Your task to perform on an android device: Search for "jbl charge 4" on amazon, select the first entry, add it to the cart, then select checkout. Image 0: 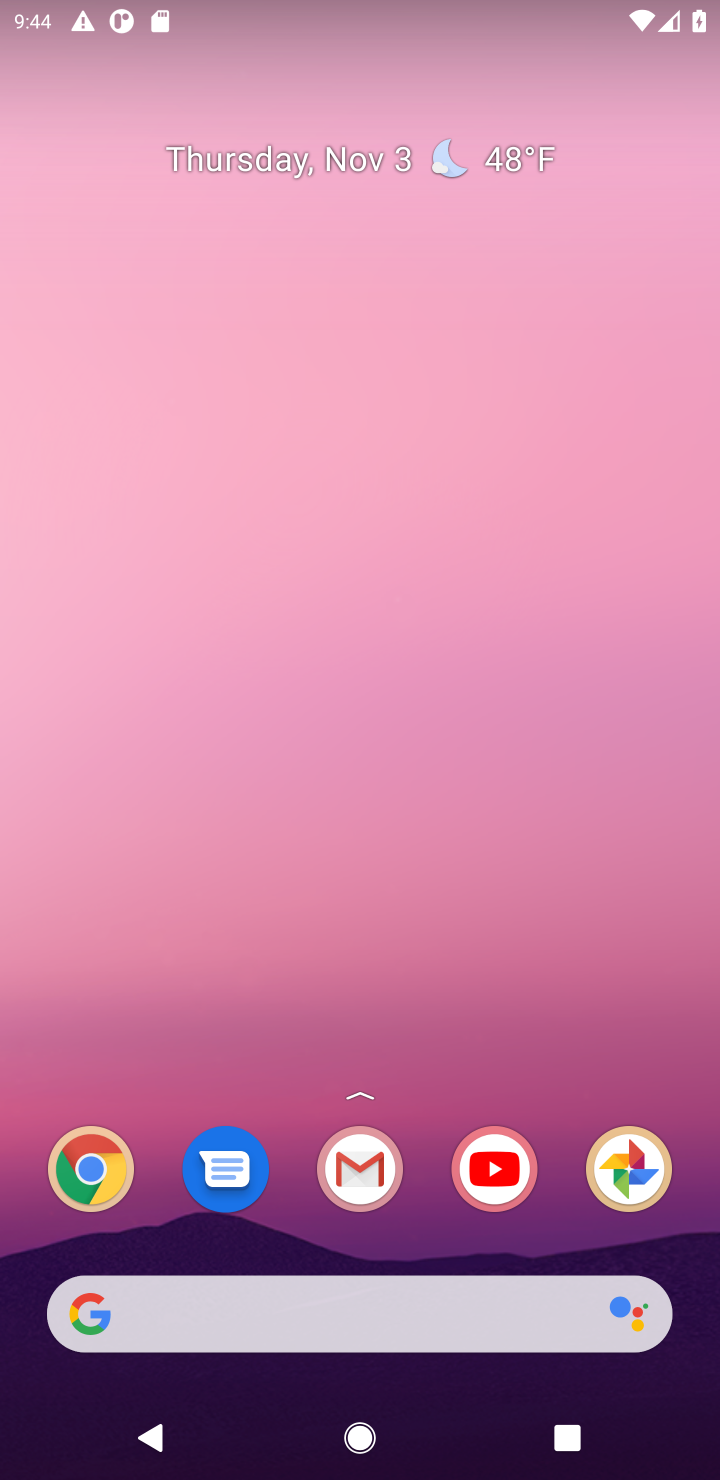
Step 0: drag from (426, 1257) to (458, 173)
Your task to perform on an android device: Search for "jbl charge 4" on amazon, select the first entry, add it to the cart, then select checkout. Image 1: 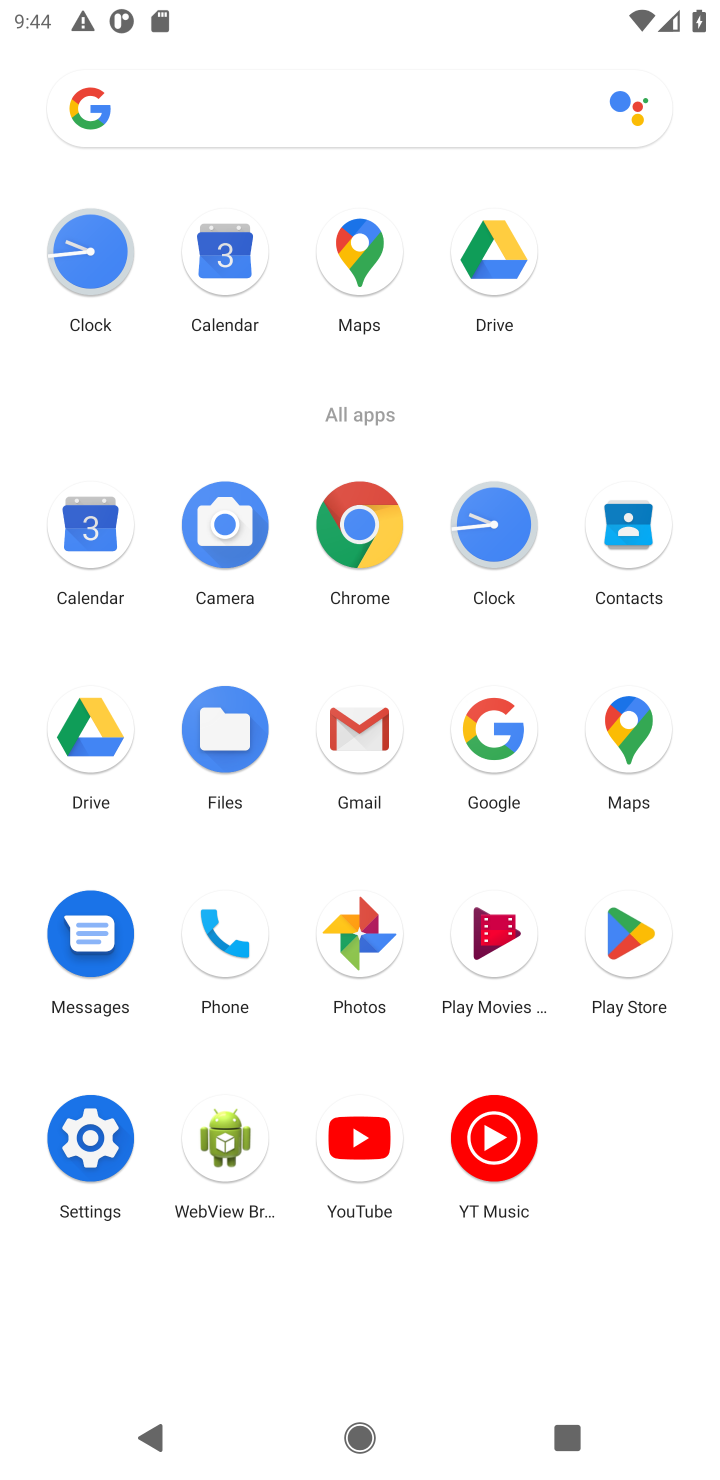
Step 1: click (363, 525)
Your task to perform on an android device: Search for "jbl charge 4" on amazon, select the first entry, add it to the cart, then select checkout. Image 2: 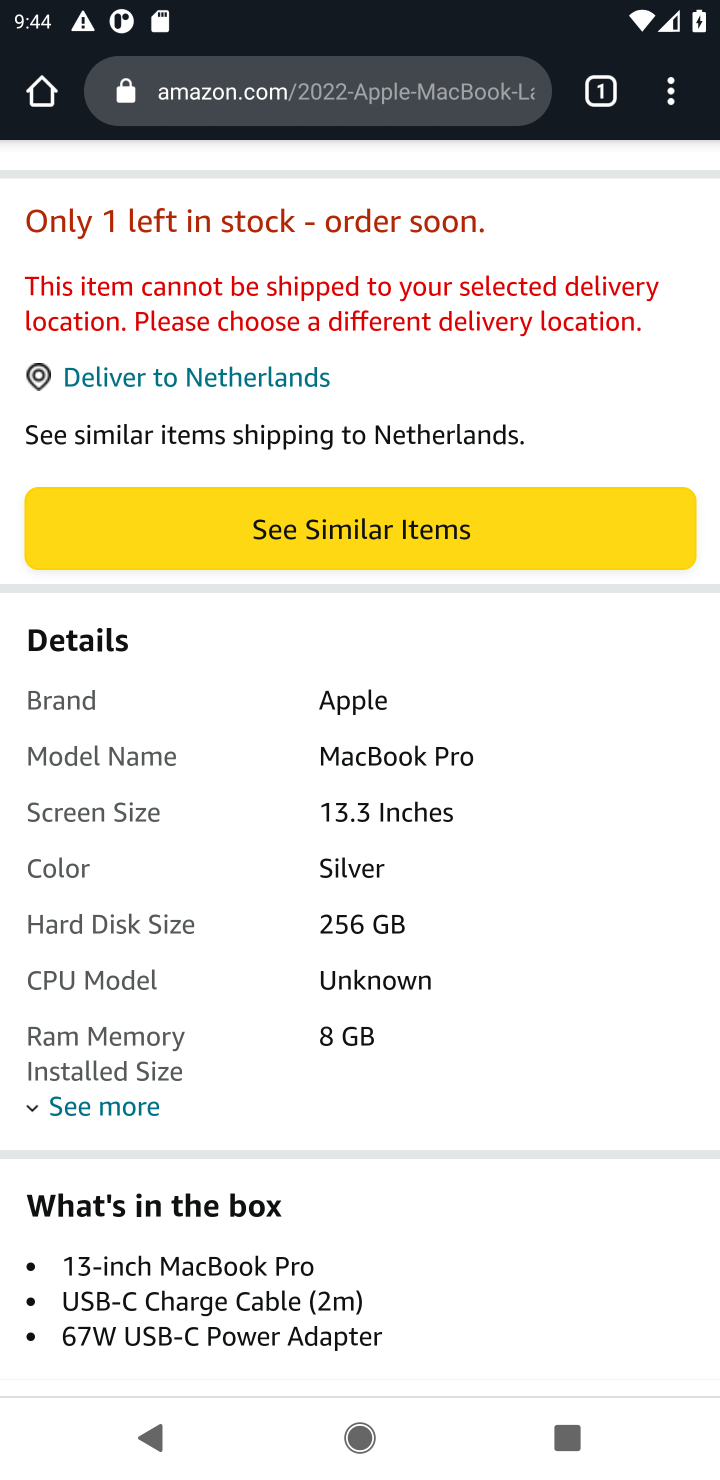
Step 2: click (284, 81)
Your task to perform on an android device: Search for "jbl charge 4" on amazon, select the first entry, add it to the cart, then select checkout. Image 3: 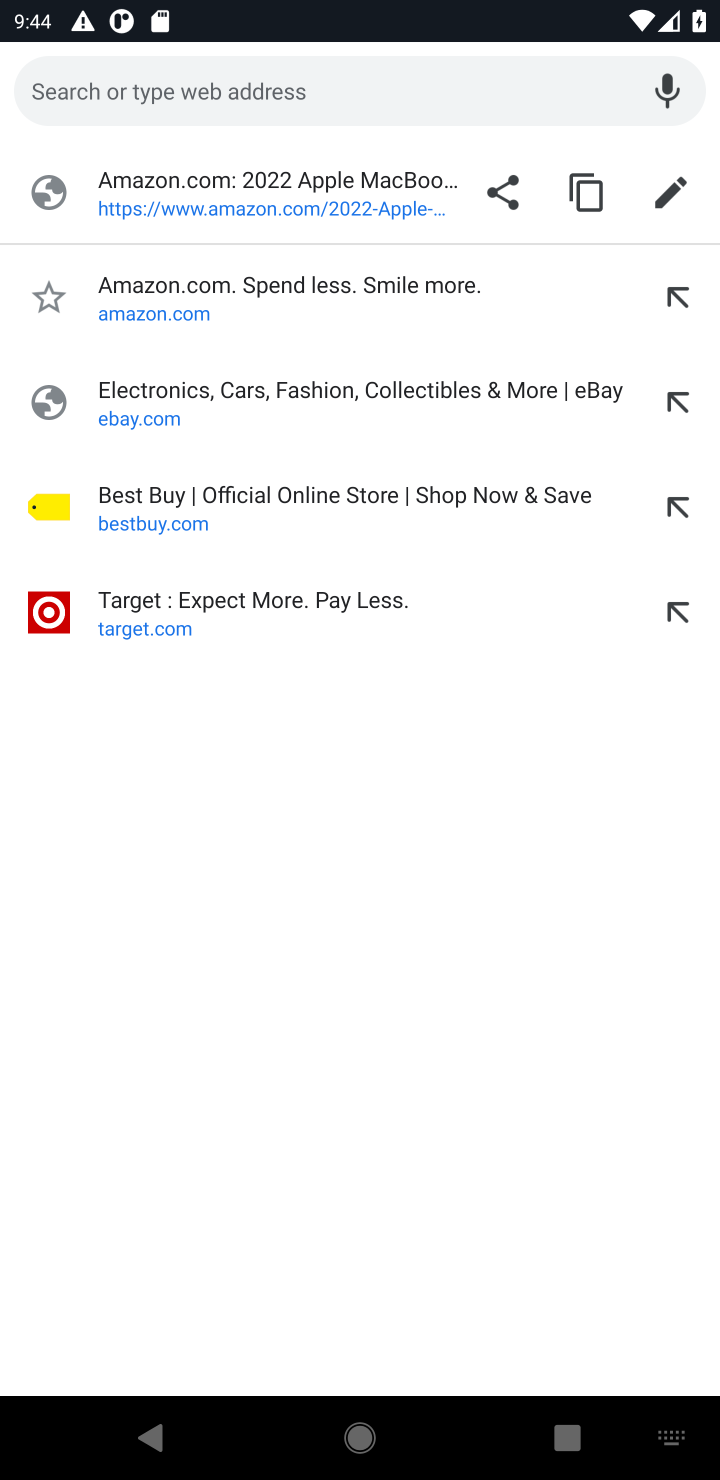
Step 3: type "amazon.com"
Your task to perform on an android device: Search for "jbl charge 4" on amazon, select the first entry, add it to the cart, then select checkout. Image 4: 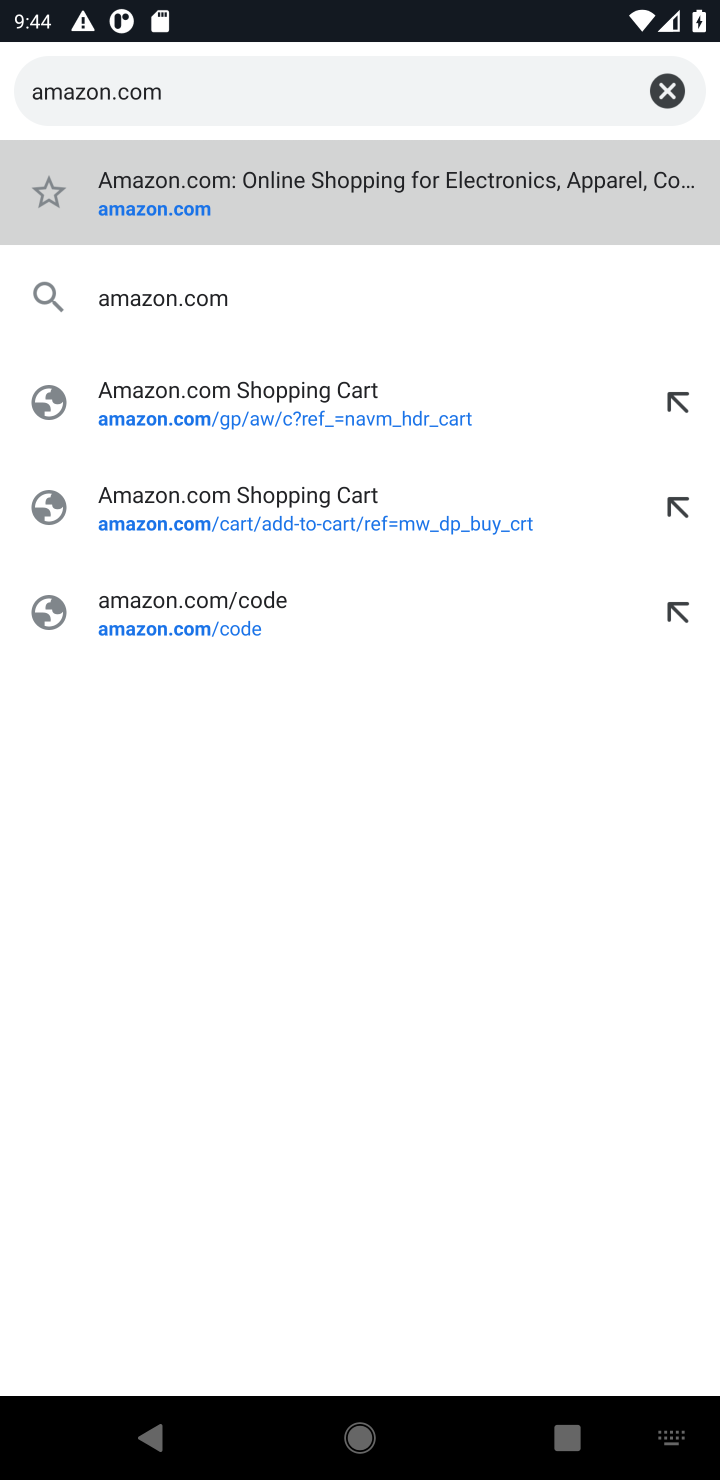
Step 4: press enter
Your task to perform on an android device: Search for "jbl charge 4" on amazon, select the first entry, add it to the cart, then select checkout. Image 5: 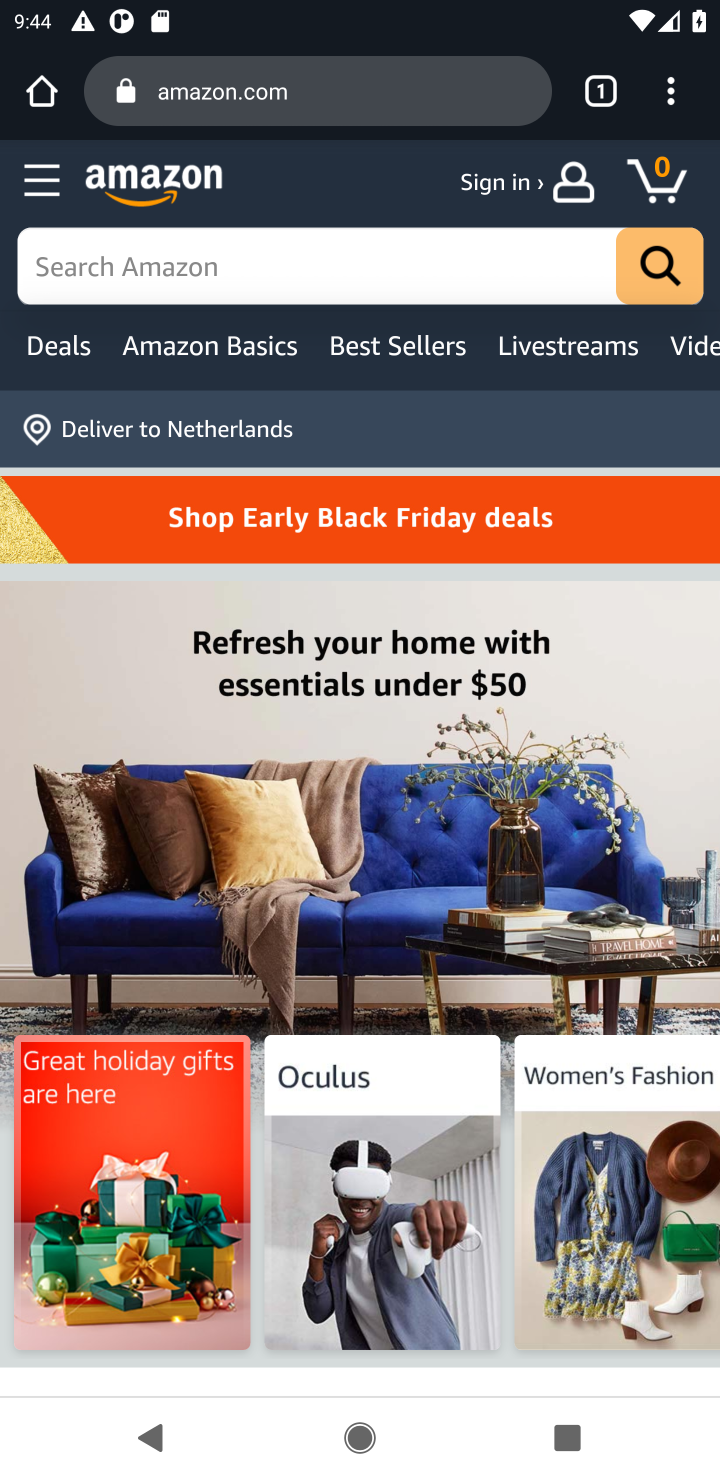
Step 5: click (306, 287)
Your task to perform on an android device: Search for "jbl charge 4" on amazon, select the first entry, add it to the cart, then select checkout. Image 6: 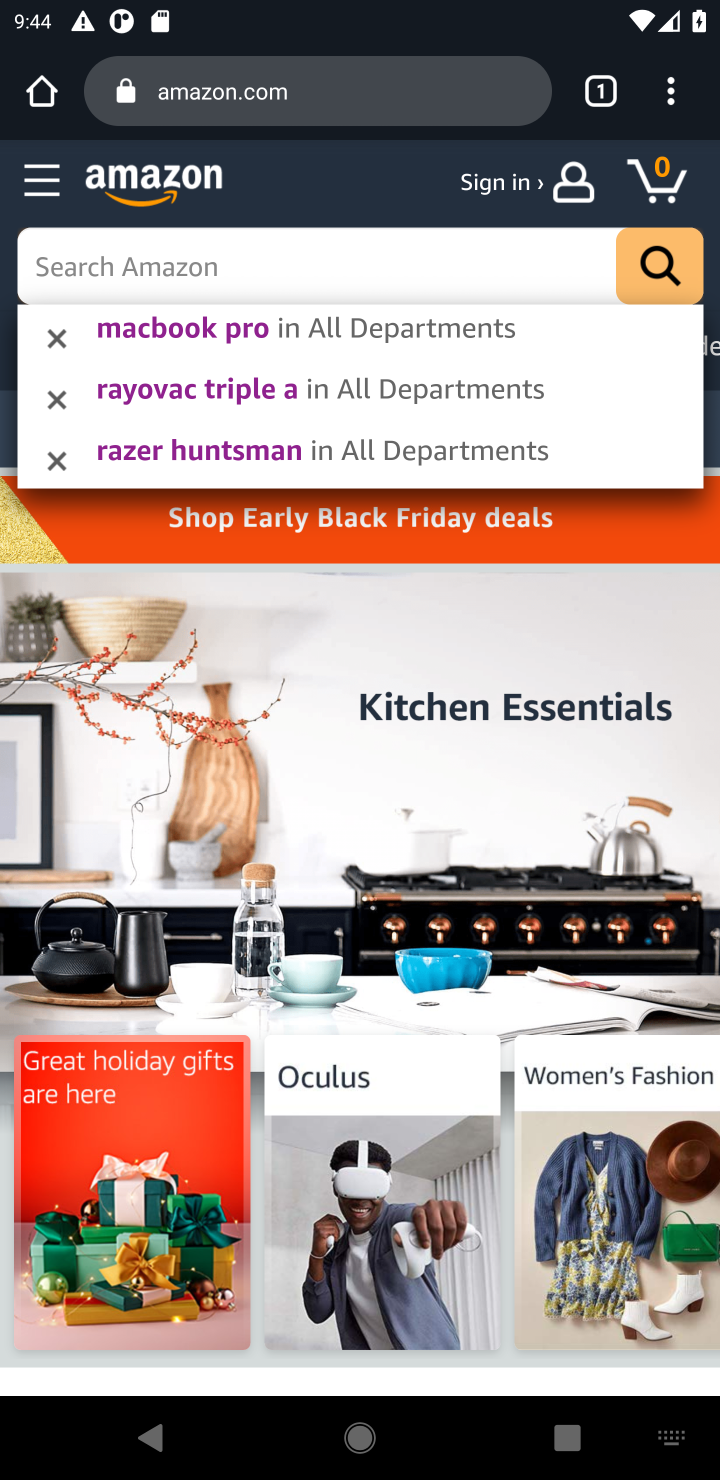
Step 6: type "jbl charge 4"
Your task to perform on an android device: Search for "jbl charge 4" on amazon, select the first entry, add it to the cart, then select checkout. Image 7: 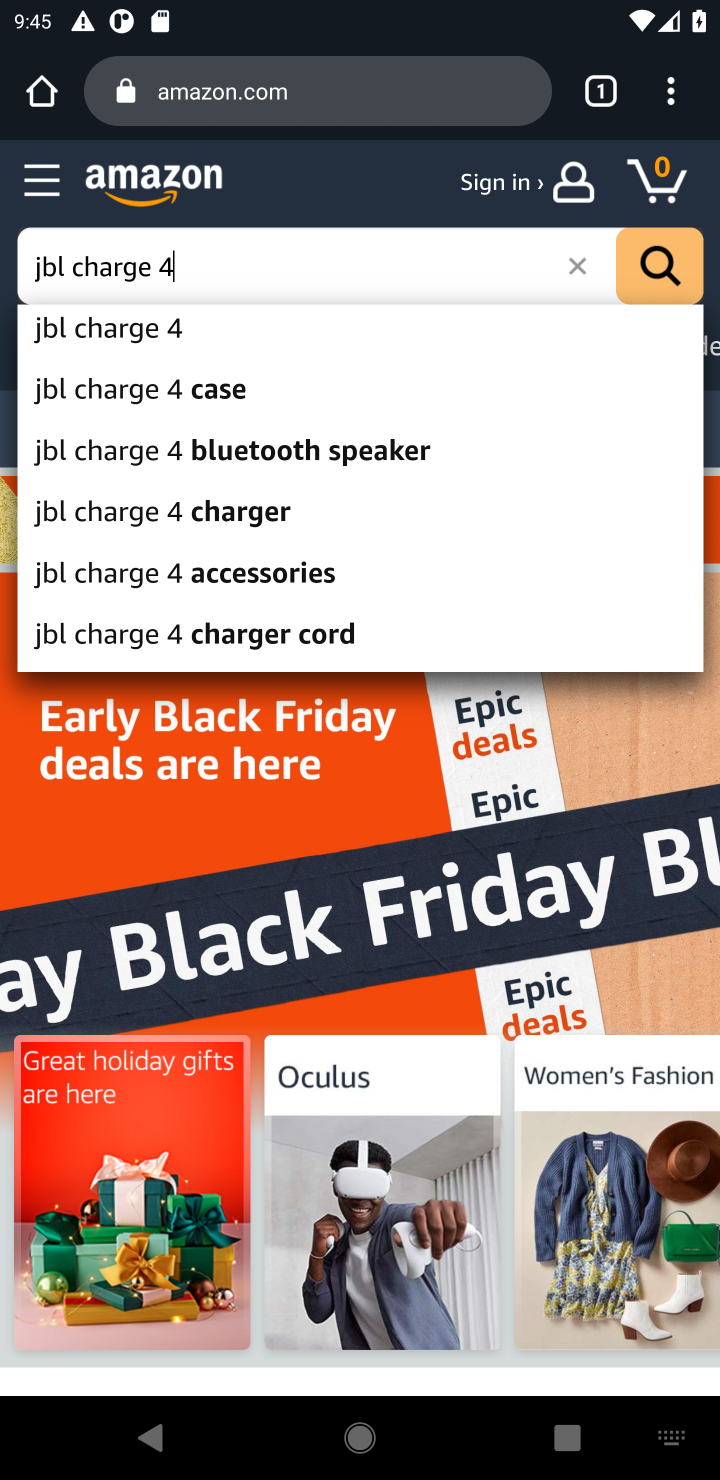
Step 7: click (646, 257)
Your task to perform on an android device: Search for "jbl charge 4" on amazon, select the first entry, add it to the cart, then select checkout. Image 8: 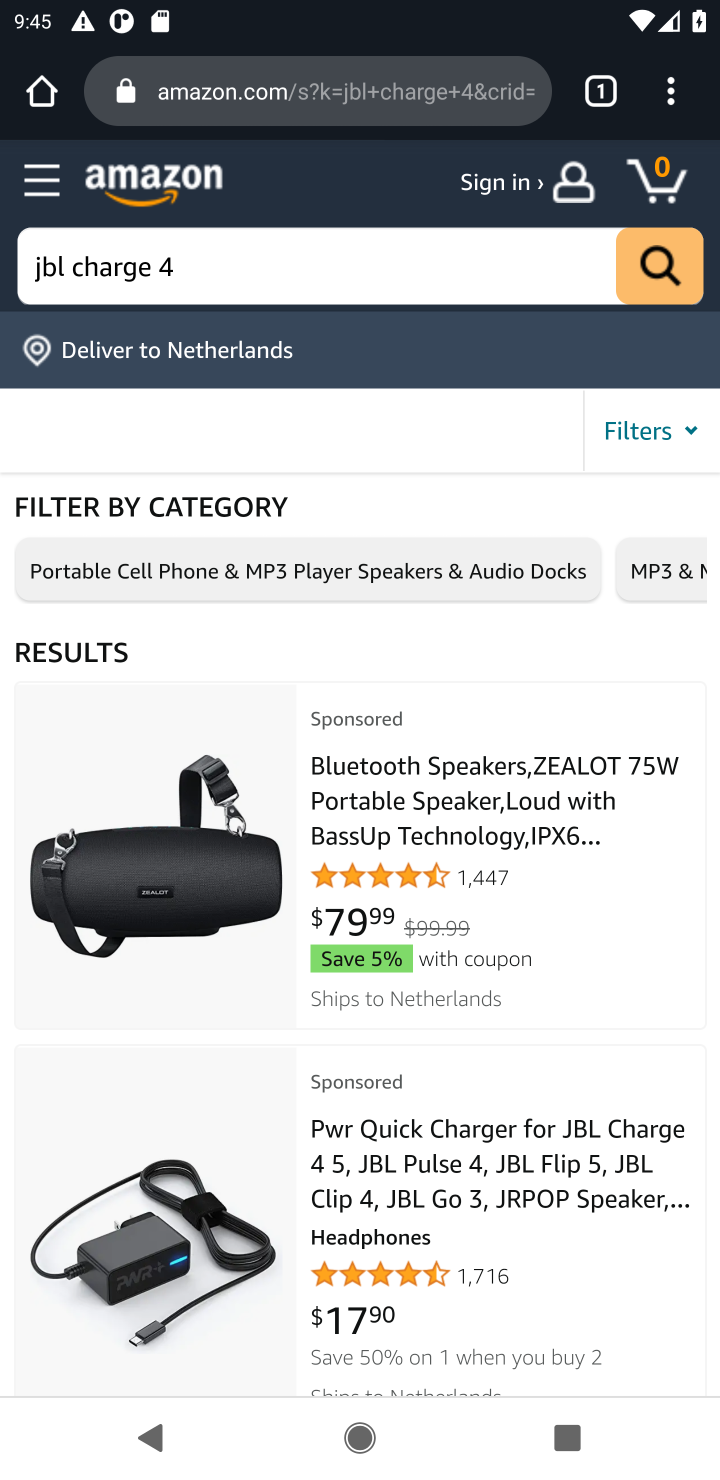
Step 8: drag from (580, 1365) to (465, 175)
Your task to perform on an android device: Search for "jbl charge 4" on amazon, select the first entry, add it to the cart, then select checkout. Image 9: 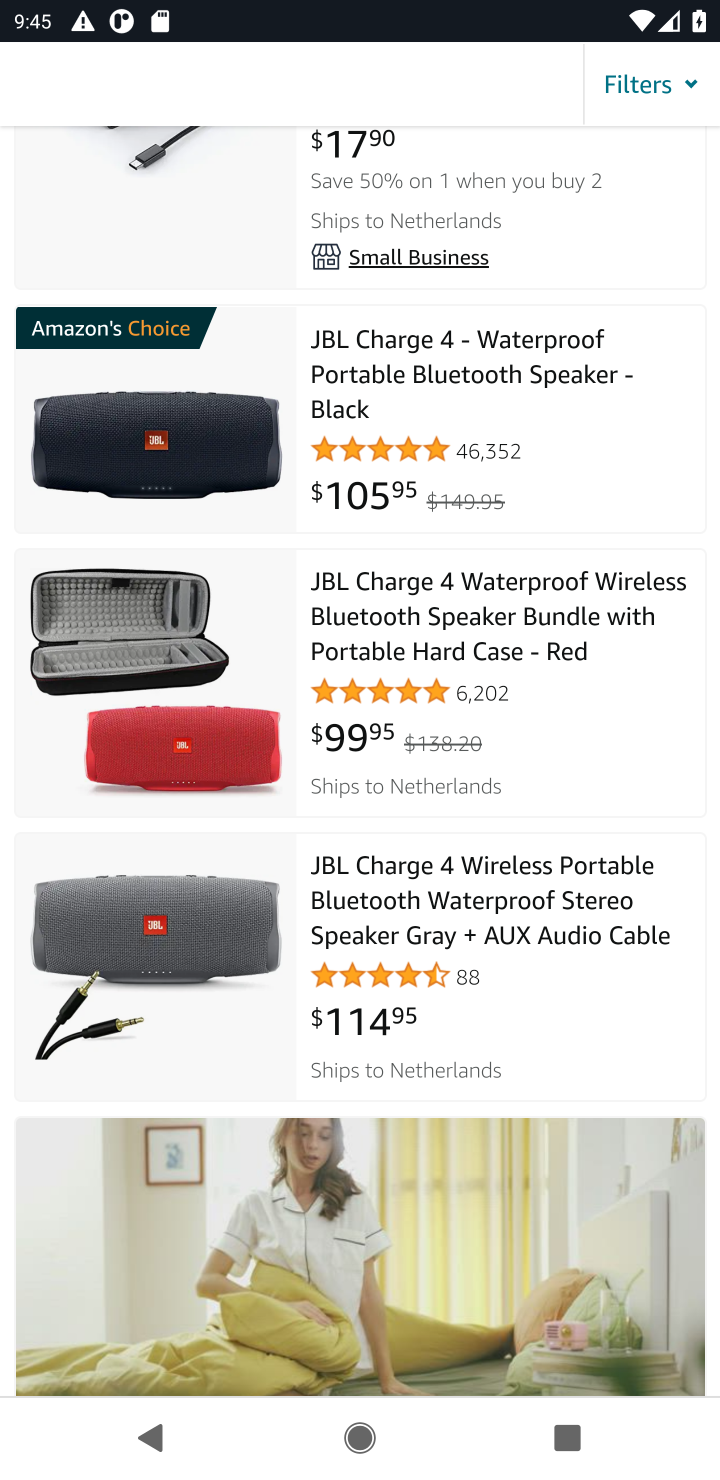
Step 9: click (408, 581)
Your task to perform on an android device: Search for "jbl charge 4" on amazon, select the first entry, add it to the cart, then select checkout. Image 10: 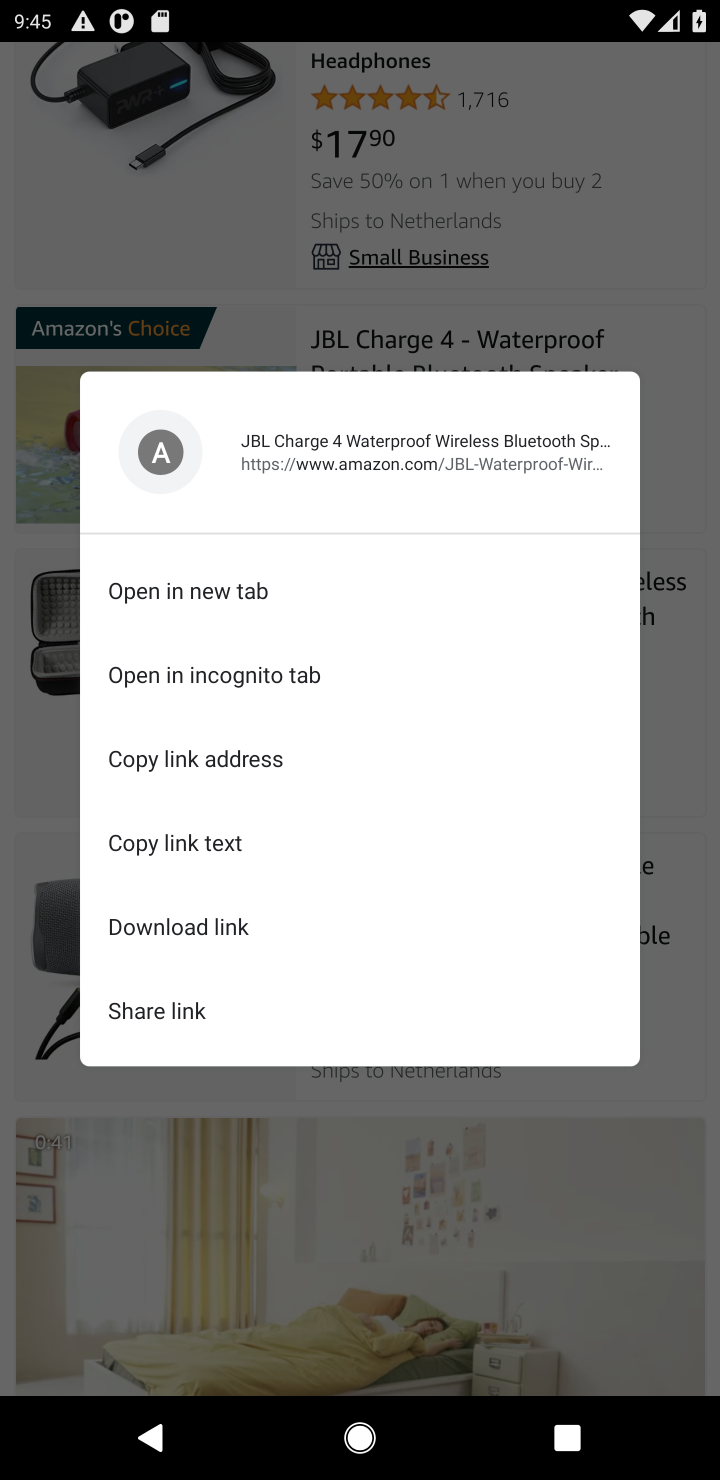
Step 10: click (462, 340)
Your task to perform on an android device: Search for "jbl charge 4" on amazon, select the first entry, add it to the cart, then select checkout. Image 11: 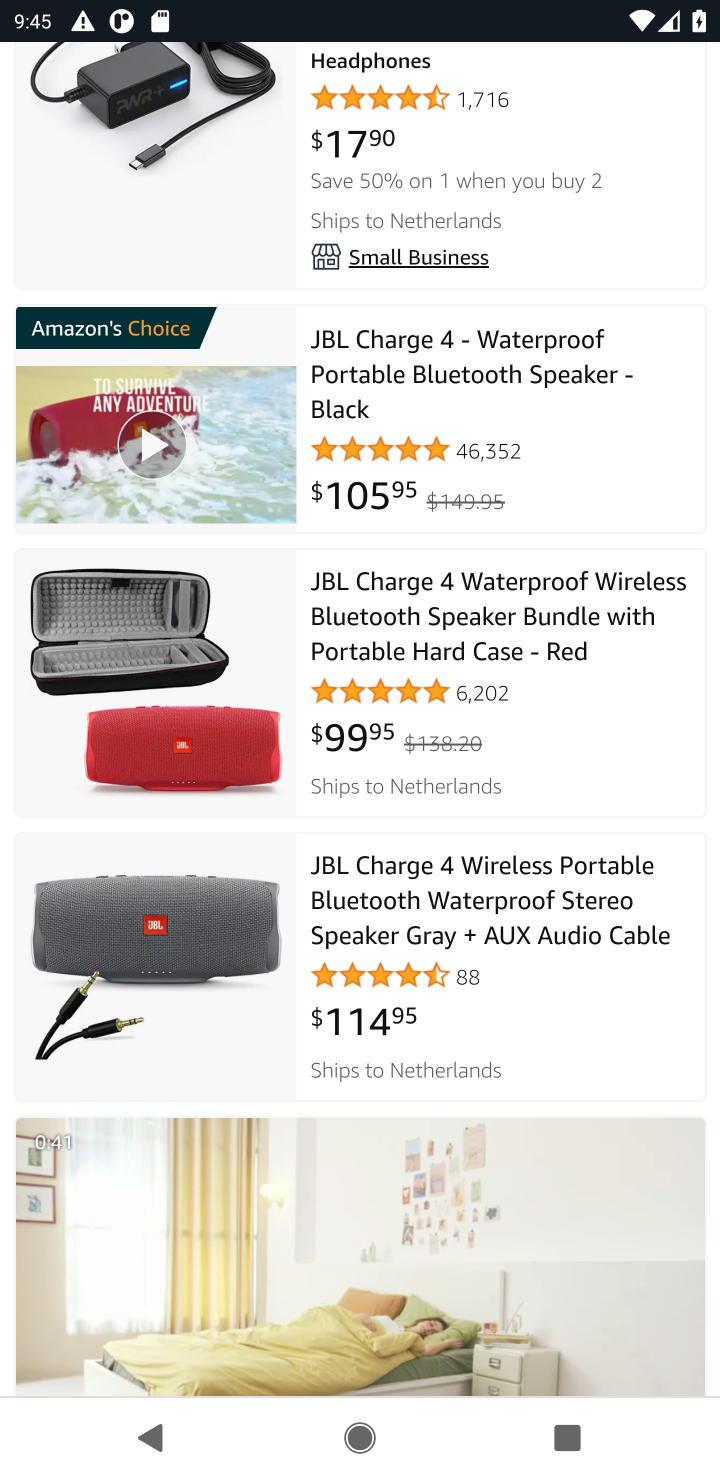
Step 11: click (449, 355)
Your task to perform on an android device: Search for "jbl charge 4" on amazon, select the first entry, add it to the cart, then select checkout. Image 12: 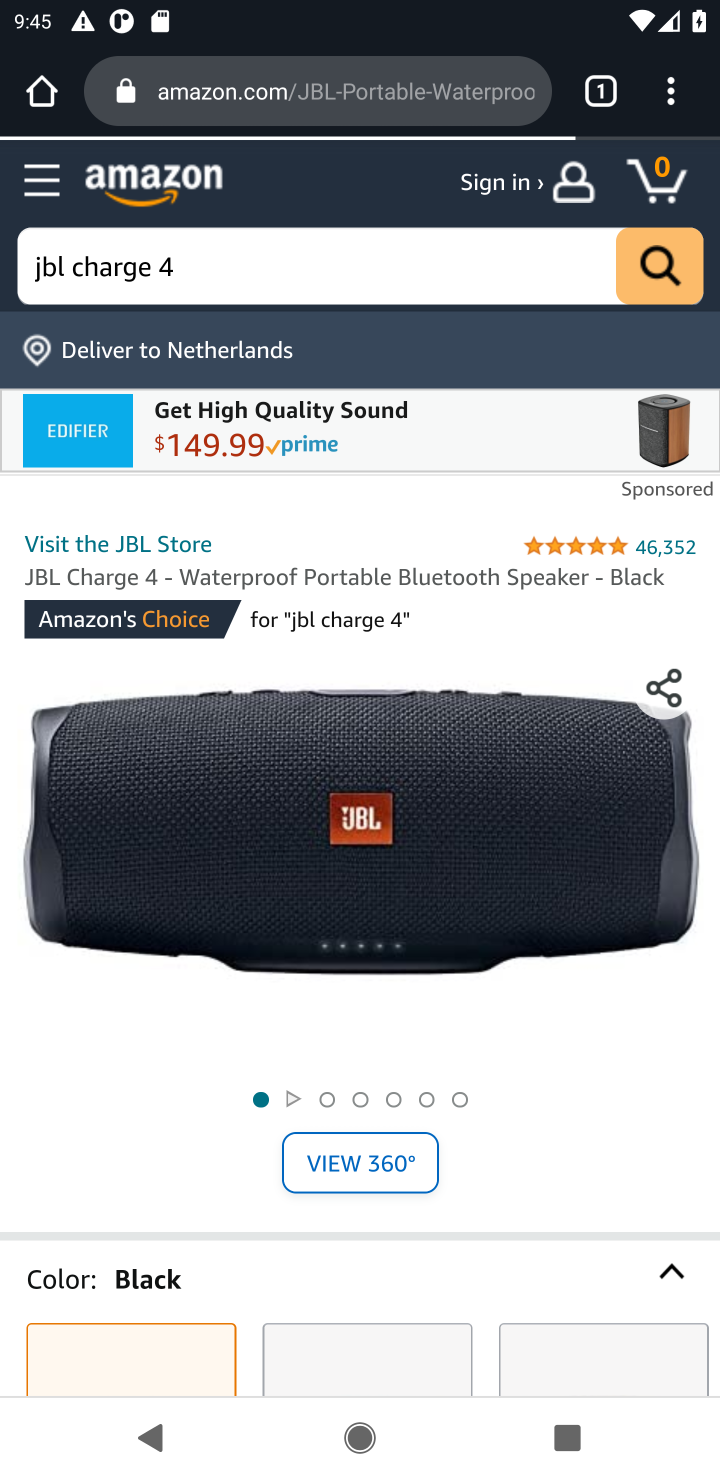
Step 12: task complete